Your task to perform on an android device: Open Google Chrome and open the bookmarks view Image 0: 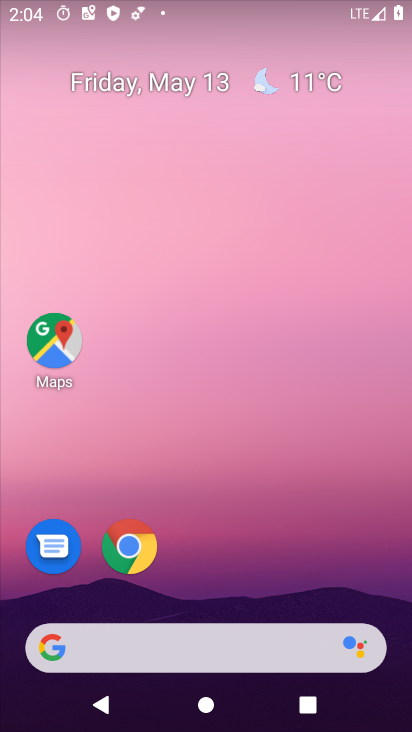
Step 0: drag from (240, 532) to (286, 185)
Your task to perform on an android device: Open Google Chrome and open the bookmarks view Image 1: 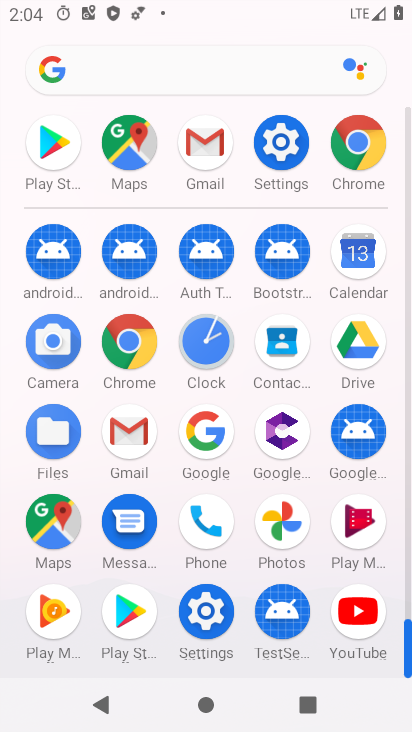
Step 1: click (366, 164)
Your task to perform on an android device: Open Google Chrome and open the bookmarks view Image 2: 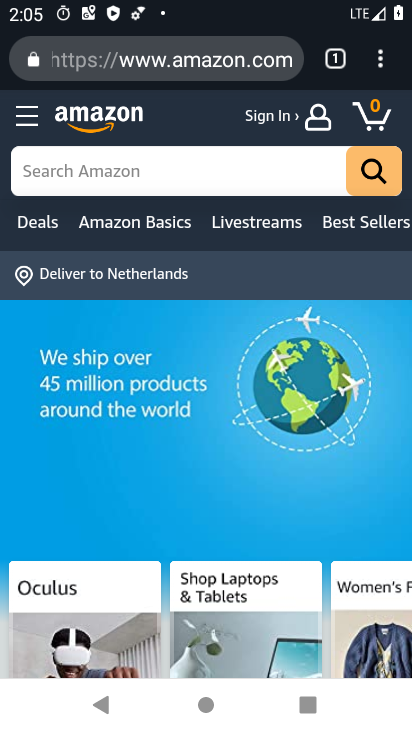
Step 2: click (378, 68)
Your task to perform on an android device: Open Google Chrome and open the bookmarks view Image 3: 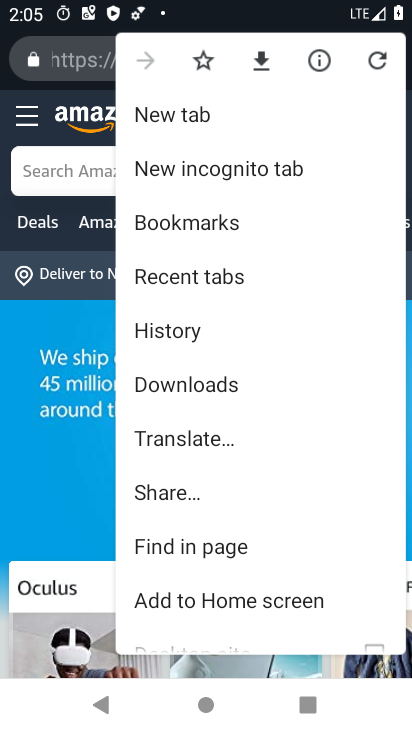
Step 3: click (258, 241)
Your task to perform on an android device: Open Google Chrome and open the bookmarks view Image 4: 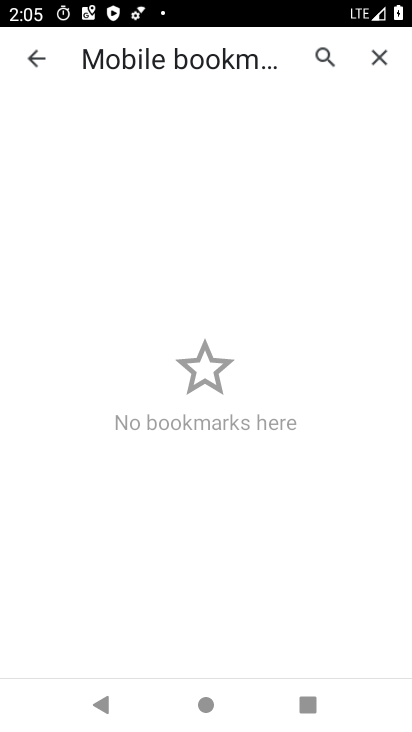
Step 4: task complete